Your task to perform on an android device: toggle notifications settings in the gmail app Image 0: 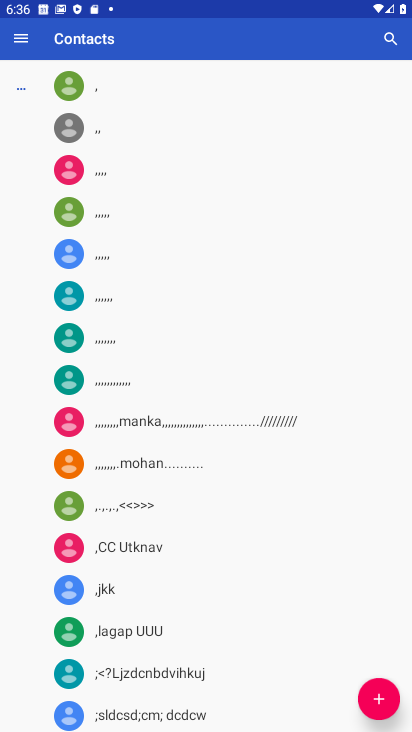
Step 0: press home button
Your task to perform on an android device: toggle notifications settings in the gmail app Image 1: 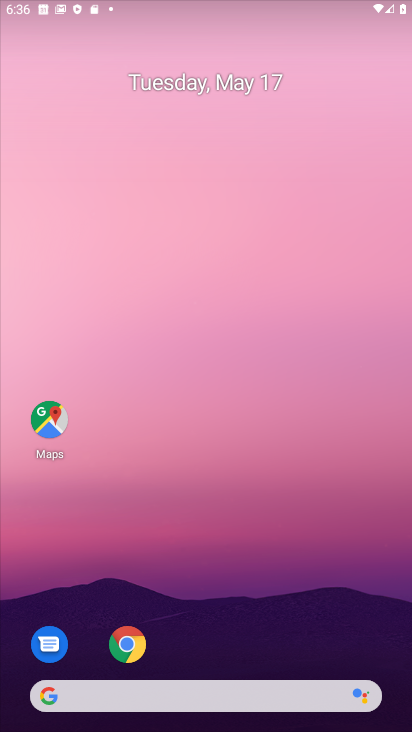
Step 1: drag from (372, 615) to (290, 93)
Your task to perform on an android device: toggle notifications settings in the gmail app Image 2: 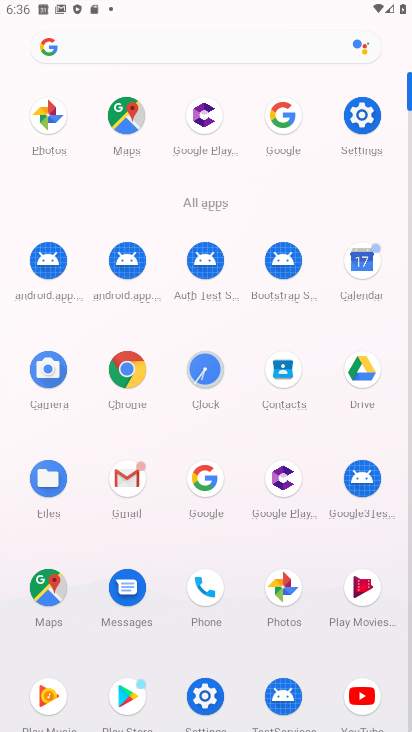
Step 2: click (137, 482)
Your task to perform on an android device: toggle notifications settings in the gmail app Image 3: 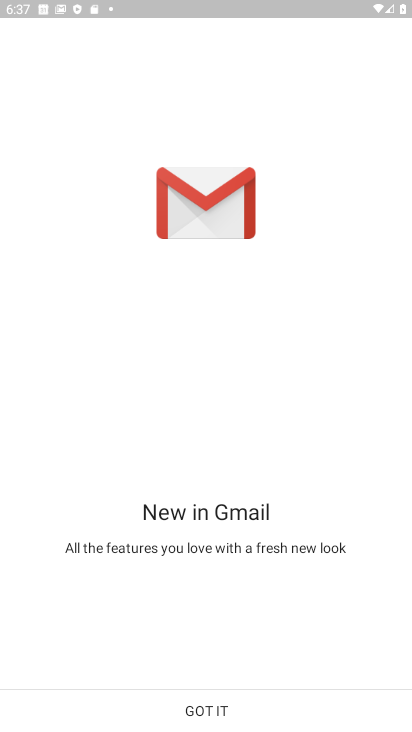
Step 3: click (164, 696)
Your task to perform on an android device: toggle notifications settings in the gmail app Image 4: 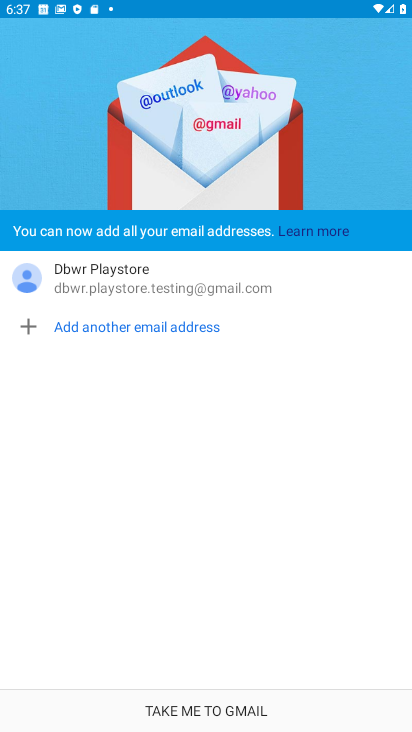
Step 4: click (164, 696)
Your task to perform on an android device: toggle notifications settings in the gmail app Image 5: 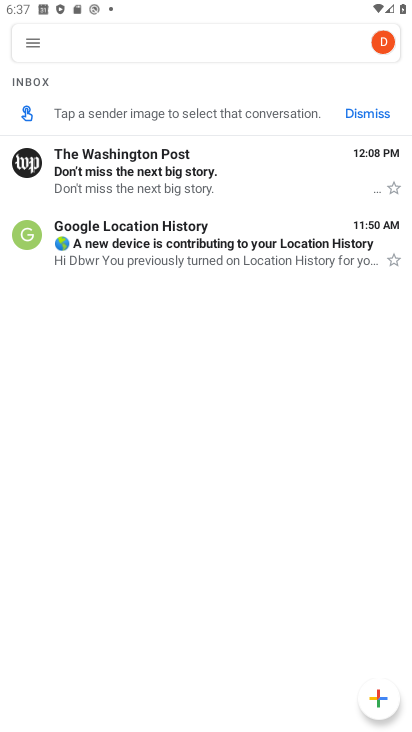
Step 5: click (26, 39)
Your task to perform on an android device: toggle notifications settings in the gmail app Image 6: 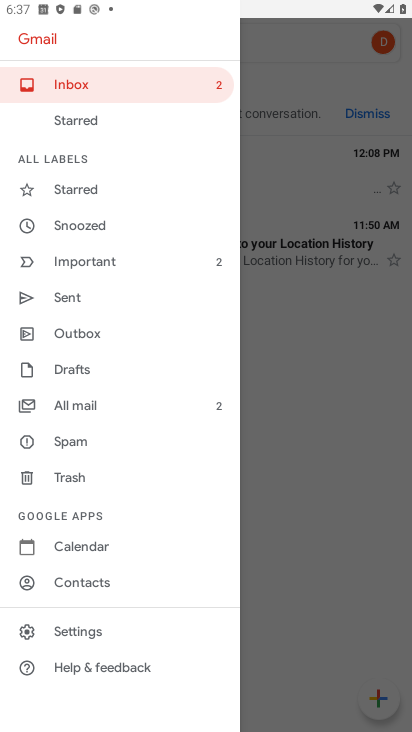
Step 6: click (97, 631)
Your task to perform on an android device: toggle notifications settings in the gmail app Image 7: 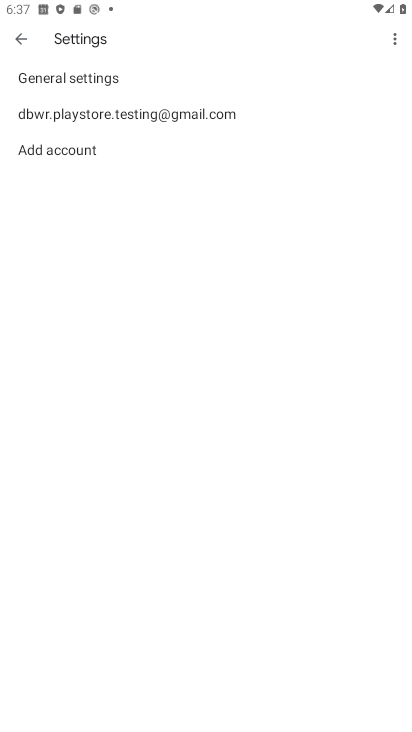
Step 7: click (119, 105)
Your task to perform on an android device: toggle notifications settings in the gmail app Image 8: 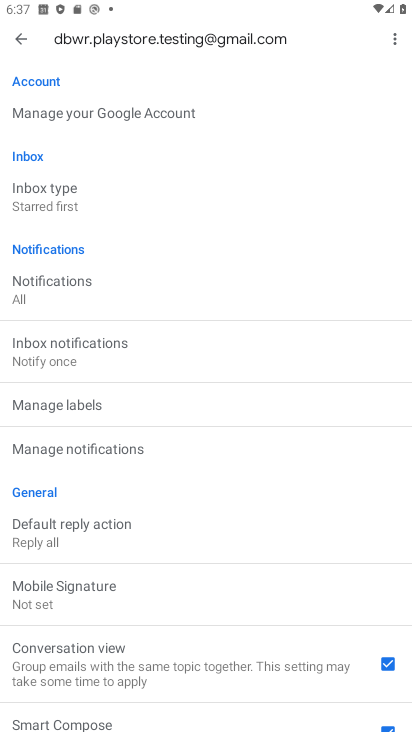
Step 8: click (102, 295)
Your task to perform on an android device: toggle notifications settings in the gmail app Image 9: 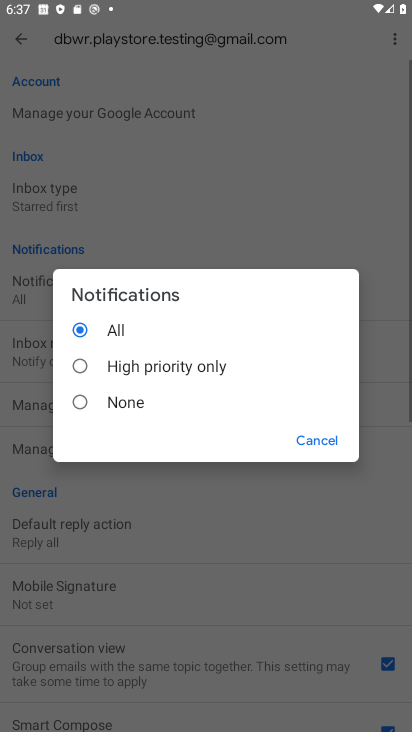
Step 9: click (118, 394)
Your task to perform on an android device: toggle notifications settings in the gmail app Image 10: 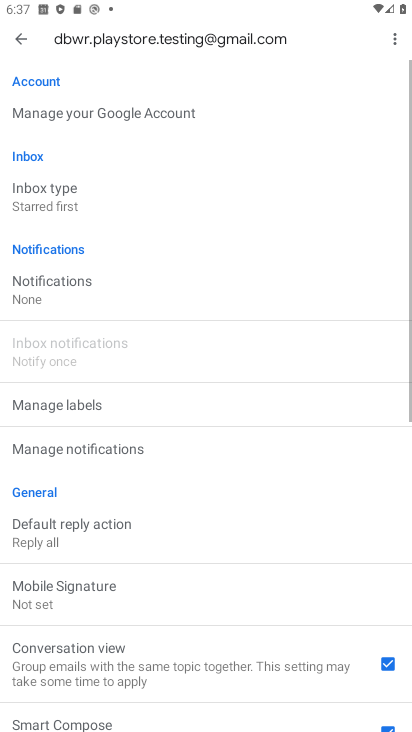
Step 10: task complete